Your task to perform on an android device: Search for "razer blade" on walmart.com, select the first entry, add it to the cart, then select checkout. Image 0: 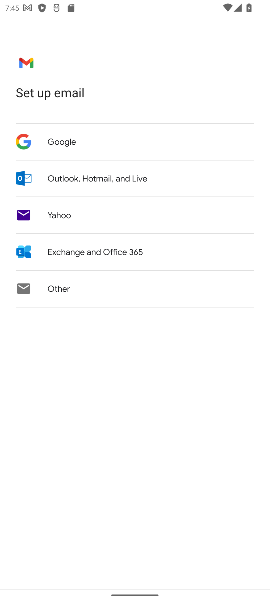
Step 0: press home button
Your task to perform on an android device: Search for "razer blade" on walmart.com, select the first entry, add it to the cart, then select checkout. Image 1: 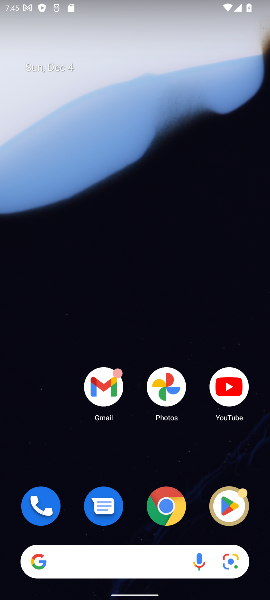
Step 1: click (158, 507)
Your task to perform on an android device: Search for "razer blade" on walmart.com, select the first entry, add it to the cart, then select checkout. Image 2: 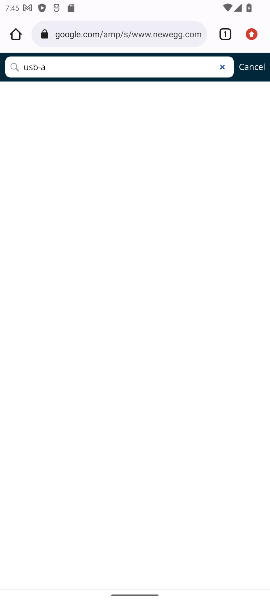
Step 2: click (138, 40)
Your task to perform on an android device: Search for "razer blade" on walmart.com, select the first entry, add it to the cart, then select checkout. Image 3: 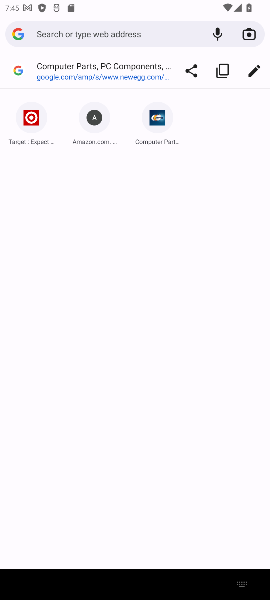
Step 3: click (138, 40)
Your task to perform on an android device: Search for "razer blade" on walmart.com, select the first entry, add it to the cart, then select checkout. Image 4: 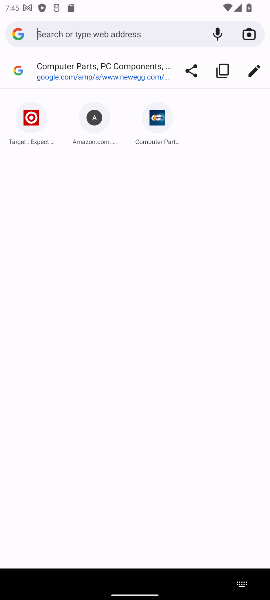
Step 4: type "walmart"
Your task to perform on an android device: Search for "razer blade" on walmart.com, select the first entry, add it to the cart, then select checkout. Image 5: 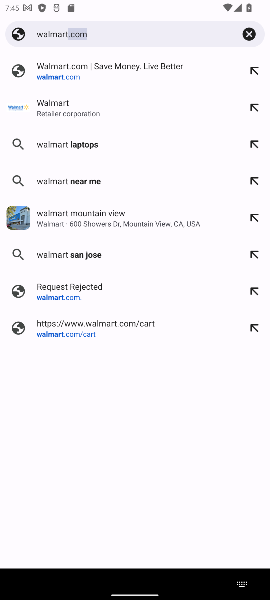
Step 5: click (92, 73)
Your task to perform on an android device: Search for "razer blade" on walmart.com, select the first entry, add it to the cart, then select checkout. Image 6: 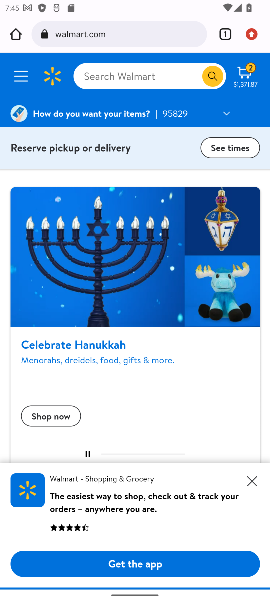
Step 6: click (150, 75)
Your task to perform on an android device: Search for "razer blade" on walmart.com, select the first entry, add it to the cart, then select checkout. Image 7: 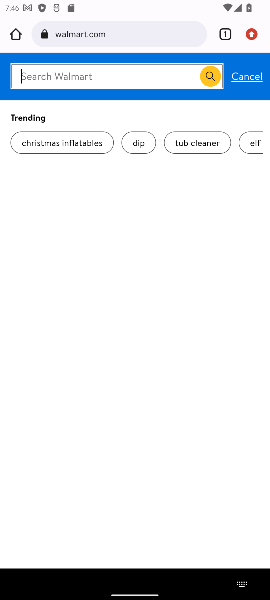
Step 7: type "razer blade"
Your task to perform on an android device: Search for "razer blade" on walmart.com, select the first entry, add it to the cart, then select checkout. Image 8: 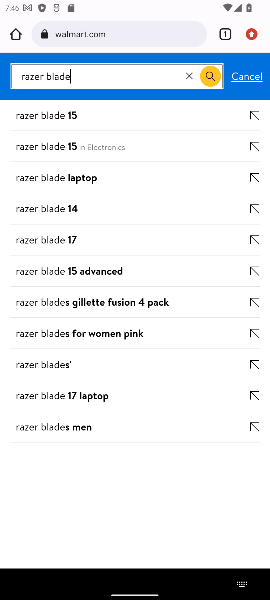
Step 8: click (208, 72)
Your task to perform on an android device: Search for "razer blade" on walmart.com, select the first entry, add it to the cart, then select checkout. Image 9: 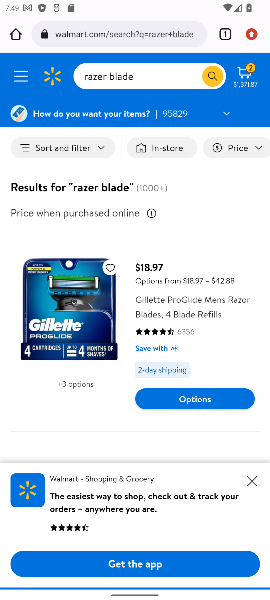
Step 9: task complete